Your task to perform on an android device: What is the news today? Image 0: 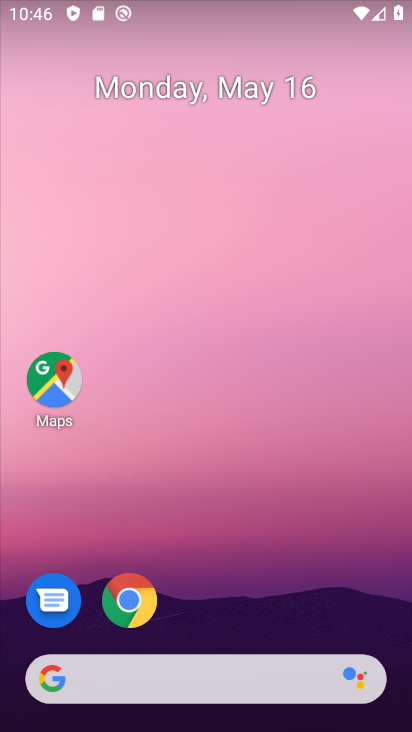
Step 0: drag from (190, 625) to (273, 44)
Your task to perform on an android device: What is the news today? Image 1: 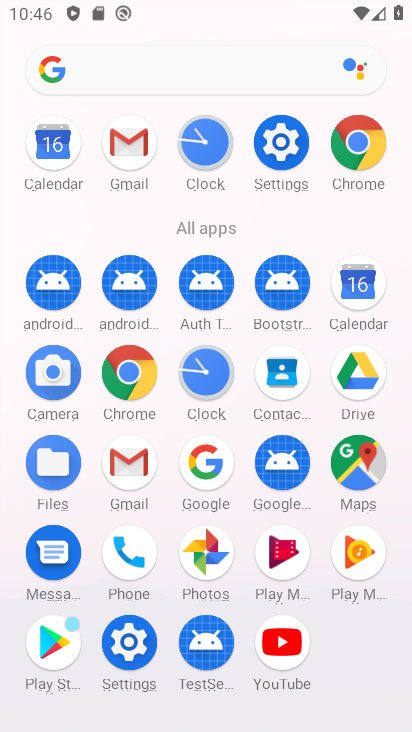
Step 1: click (358, 141)
Your task to perform on an android device: What is the news today? Image 2: 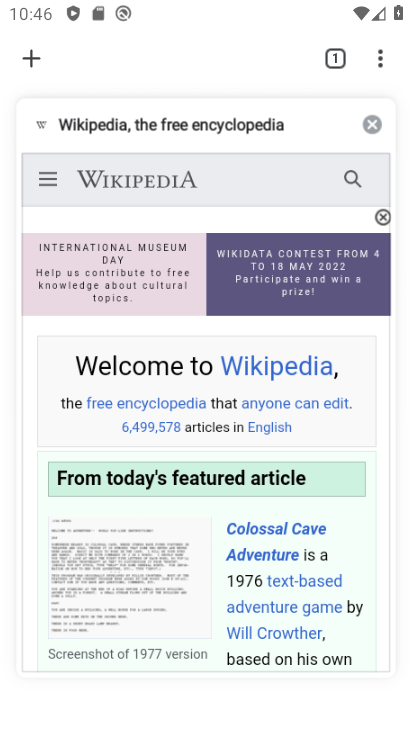
Step 2: click (129, 167)
Your task to perform on an android device: What is the news today? Image 3: 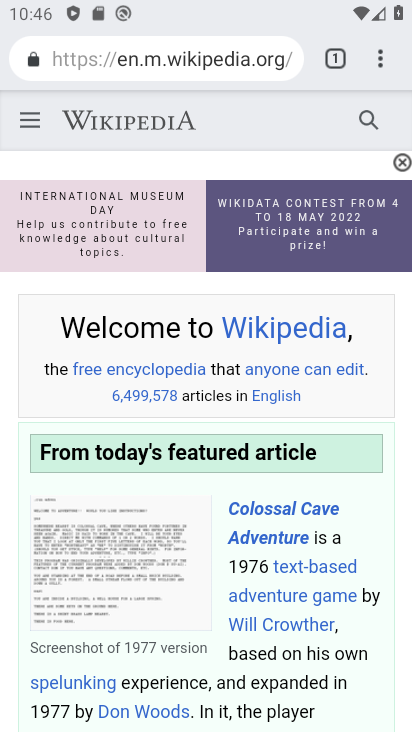
Step 3: click (166, 61)
Your task to perform on an android device: What is the news today? Image 4: 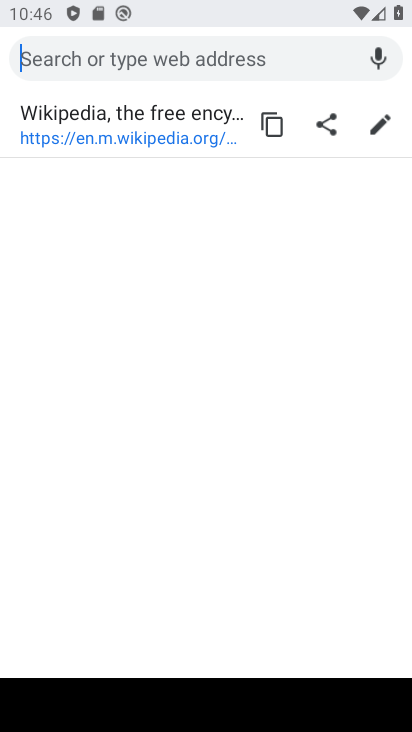
Step 4: type "What is the news today?"
Your task to perform on an android device: What is the news today? Image 5: 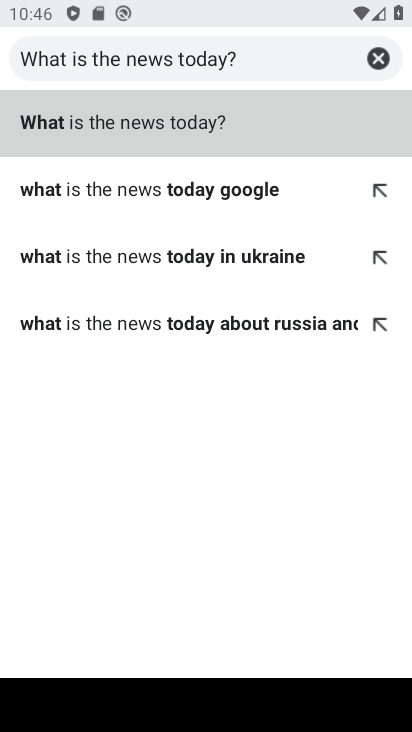
Step 5: click (249, 135)
Your task to perform on an android device: What is the news today? Image 6: 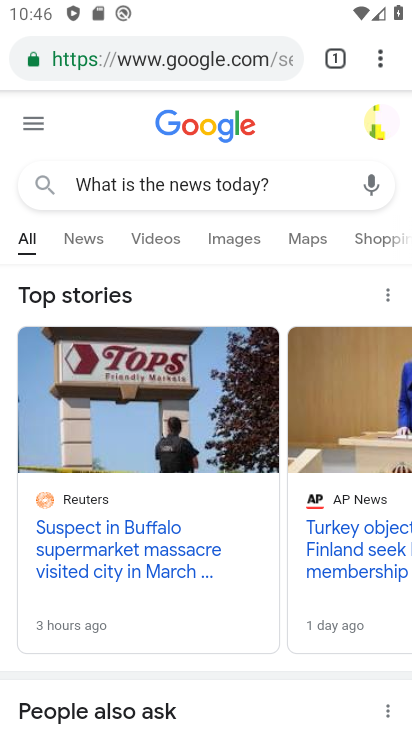
Step 6: task complete